Your task to perform on an android device: Open my contact list Image 0: 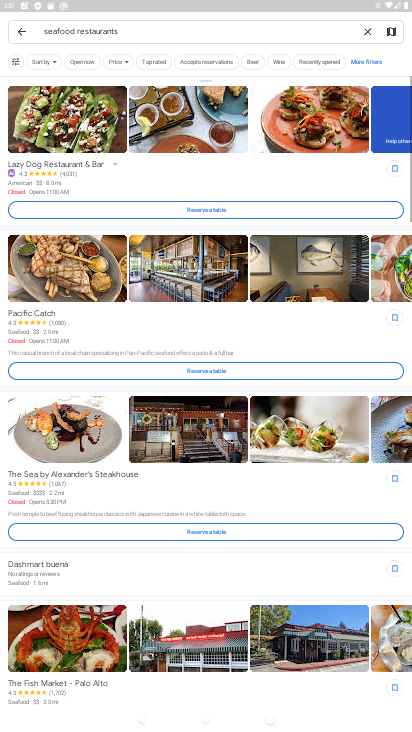
Step 0: press home button
Your task to perform on an android device: Open my contact list Image 1: 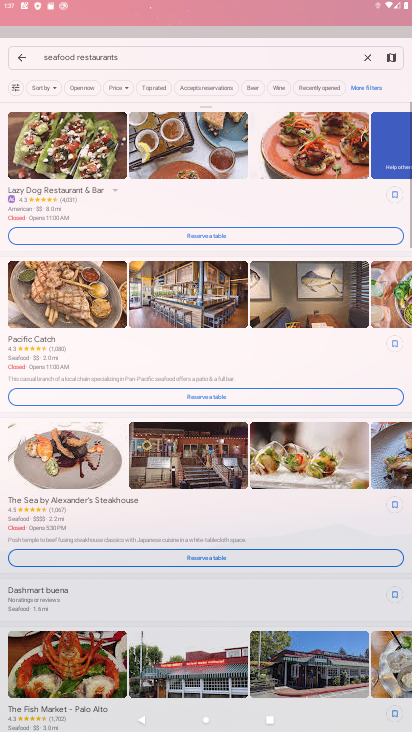
Step 1: press home button
Your task to perform on an android device: Open my contact list Image 2: 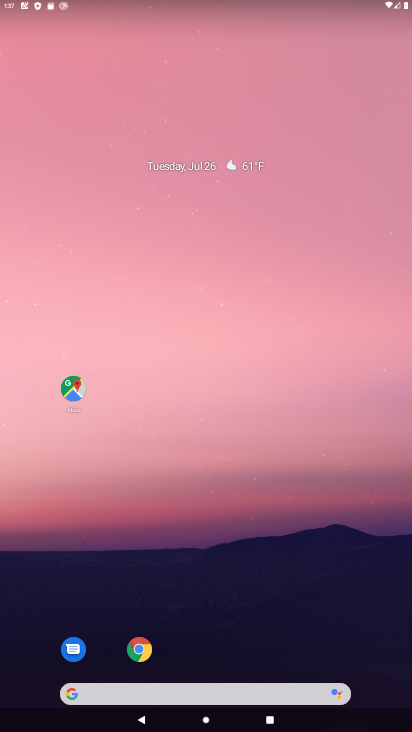
Step 2: drag from (231, 655) to (228, 7)
Your task to perform on an android device: Open my contact list Image 3: 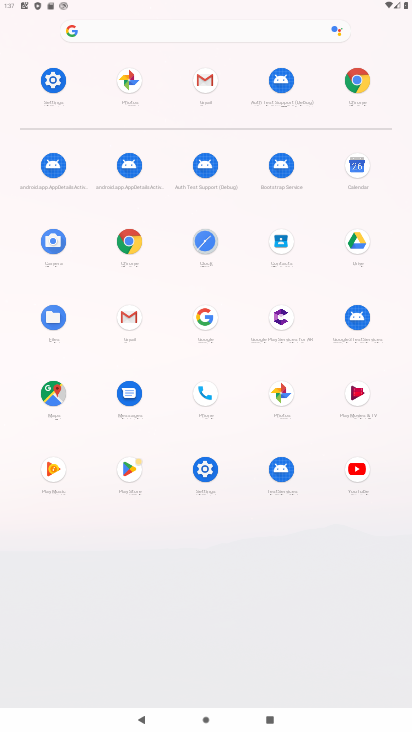
Step 3: click (282, 238)
Your task to perform on an android device: Open my contact list Image 4: 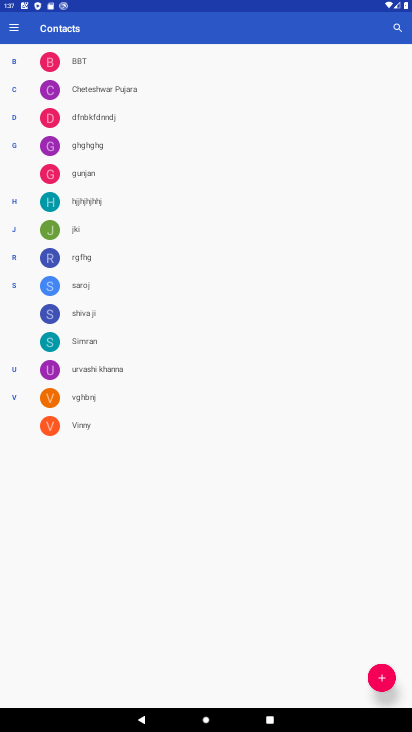
Step 4: task complete